Your task to perform on an android device: Open the calendar app, open the side menu, and click the "Day" option Image 0: 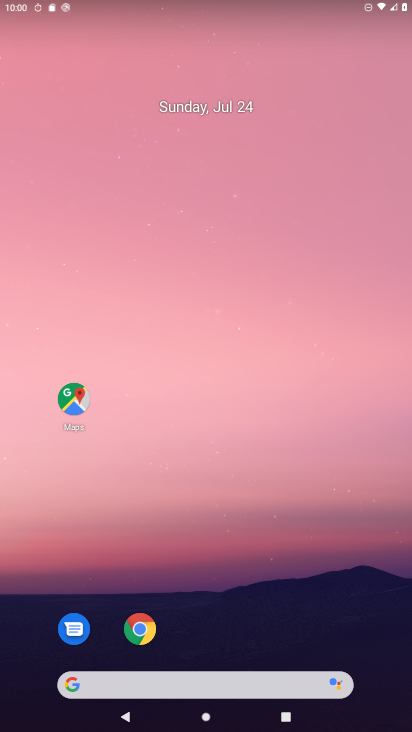
Step 0: drag from (222, 599) to (272, 125)
Your task to perform on an android device: Open the calendar app, open the side menu, and click the "Day" option Image 1: 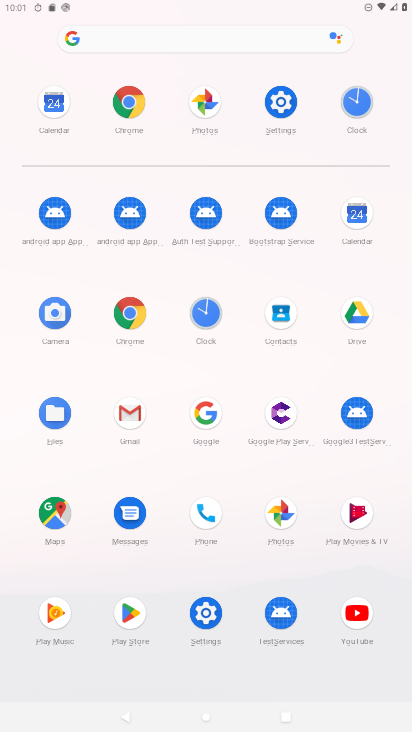
Step 1: click (362, 230)
Your task to perform on an android device: Open the calendar app, open the side menu, and click the "Day" option Image 2: 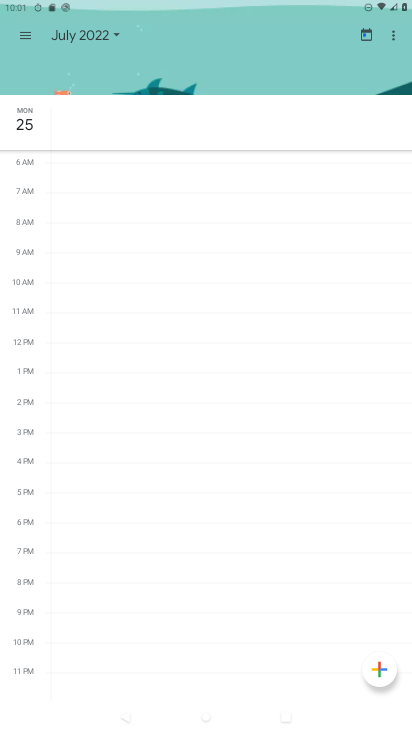
Step 2: click (29, 35)
Your task to perform on an android device: Open the calendar app, open the side menu, and click the "Day" option Image 3: 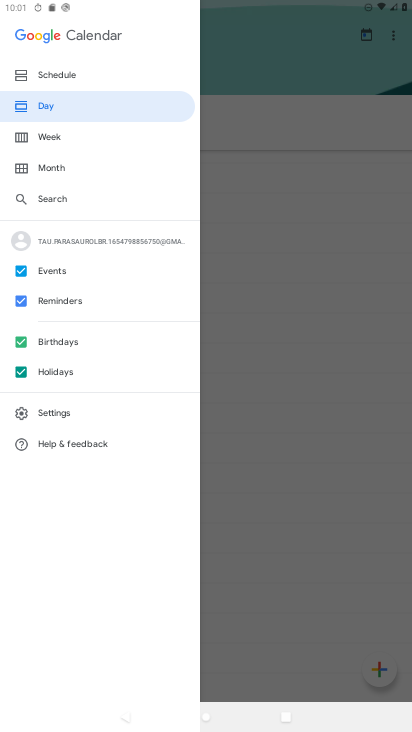
Step 3: task complete